Your task to perform on an android device: toggle data saver in the chrome app Image 0: 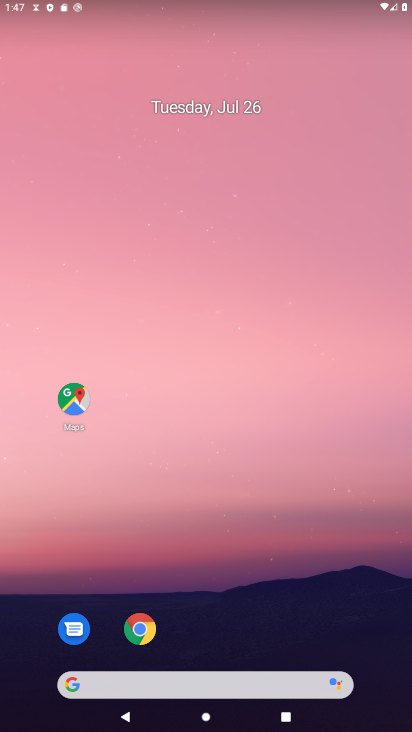
Step 0: drag from (244, 677) to (343, 1)
Your task to perform on an android device: toggle data saver in the chrome app Image 1: 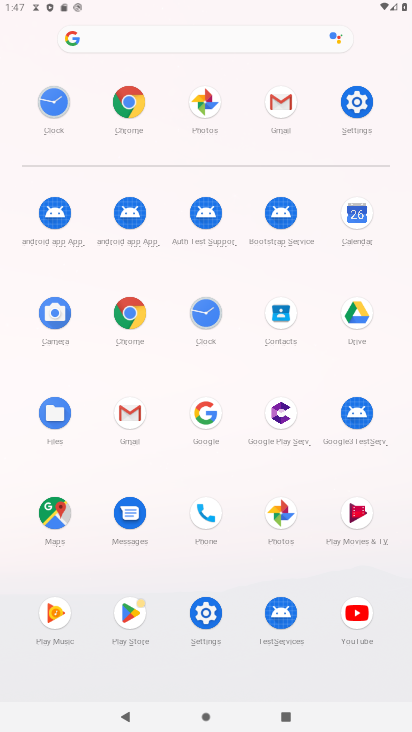
Step 1: click (145, 313)
Your task to perform on an android device: toggle data saver in the chrome app Image 2: 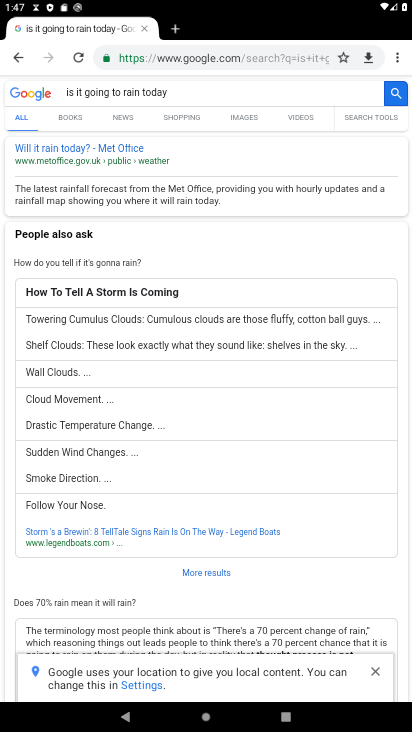
Step 2: drag from (403, 53) to (361, 286)
Your task to perform on an android device: toggle data saver in the chrome app Image 3: 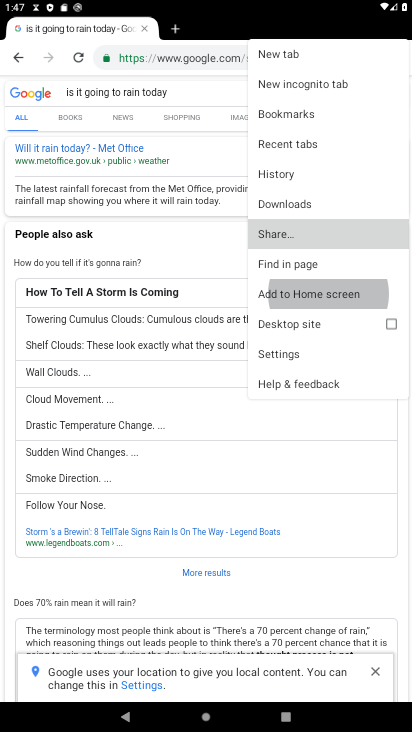
Step 3: drag from (350, 319) to (312, 346)
Your task to perform on an android device: toggle data saver in the chrome app Image 4: 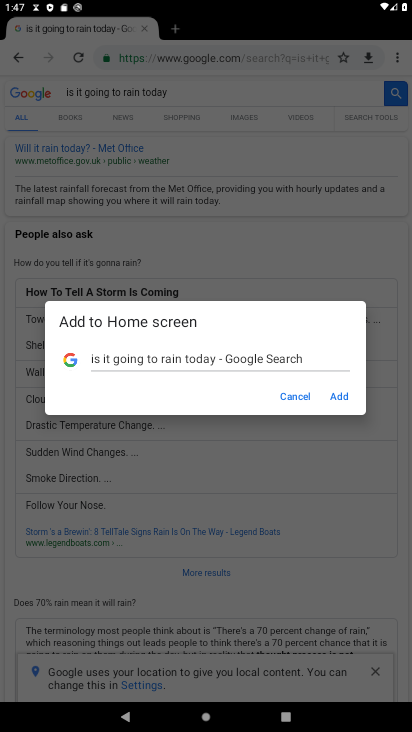
Step 4: click (281, 392)
Your task to perform on an android device: toggle data saver in the chrome app Image 5: 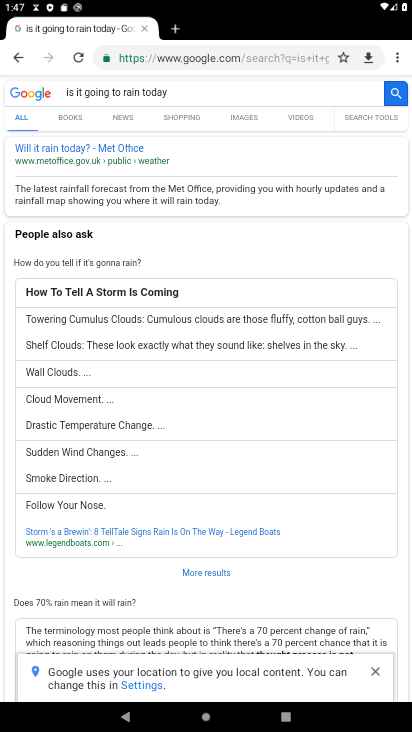
Step 5: click (395, 53)
Your task to perform on an android device: toggle data saver in the chrome app Image 6: 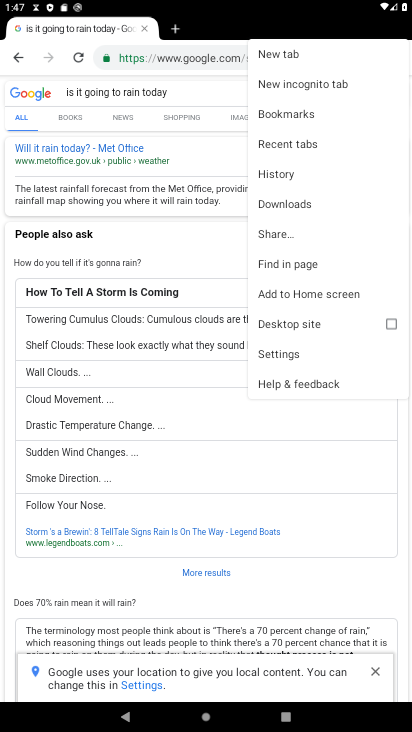
Step 6: click (290, 349)
Your task to perform on an android device: toggle data saver in the chrome app Image 7: 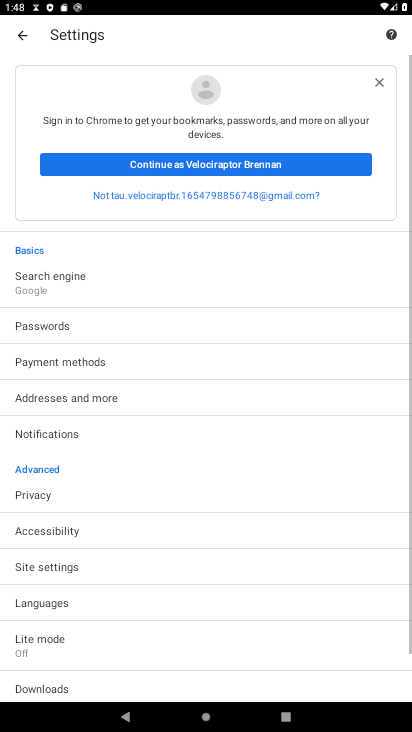
Step 7: click (50, 630)
Your task to perform on an android device: toggle data saver in the chrome app Image 8: 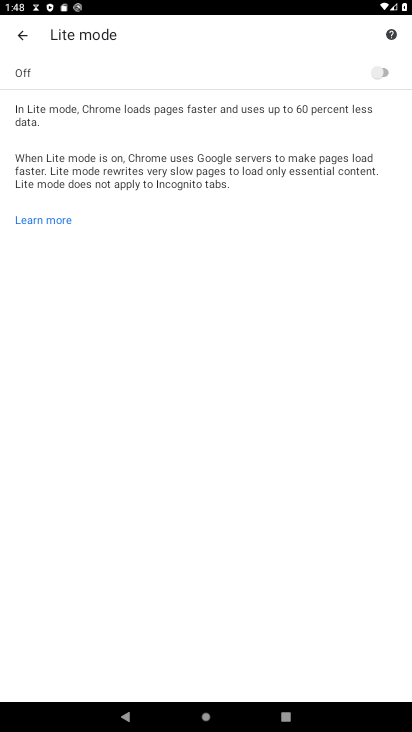
Step 8: click (389, 65)
Your task to perform on an android device: toggle data saver in the chrome app Image 9: 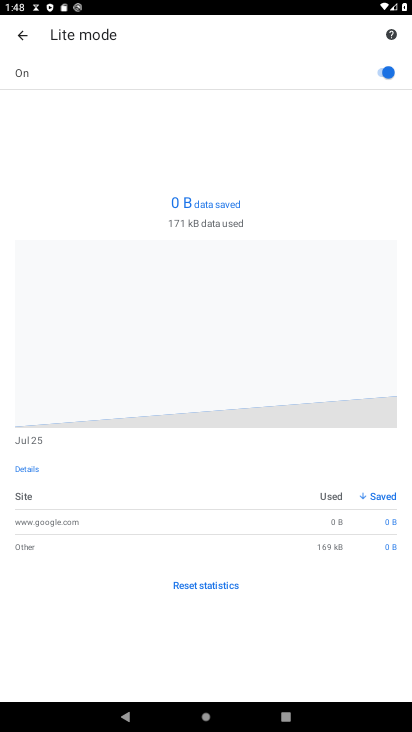
Step 9: task complete